Your task to perform on an android device: turn off translation in the chrome app Image 0: 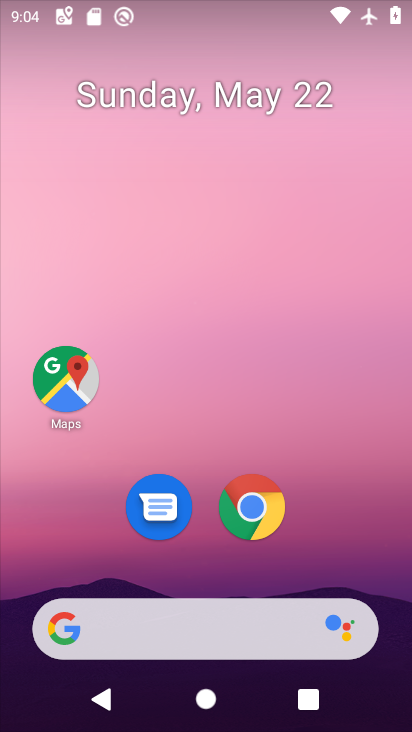
Step 0: click (262, 502)
Your task to perform on an android device: turn off translation in the chrome app Image 1: 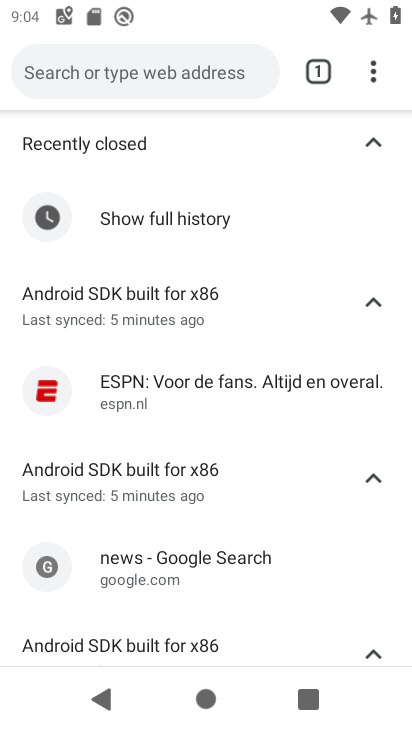
Step 1: click (361, 66)
Your task to perform on an android device: turn off translation in the chrome app Image 2: 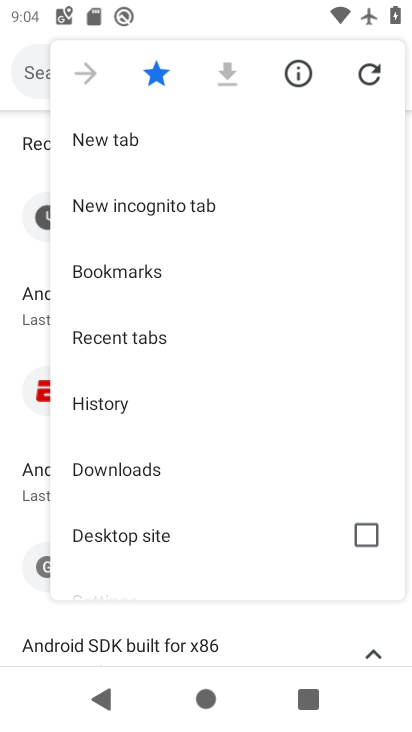
Step 2: drag from (147, 587) to (245, 258)
Your task to perform on an android device: turn off translation in the chrome app Image 3: 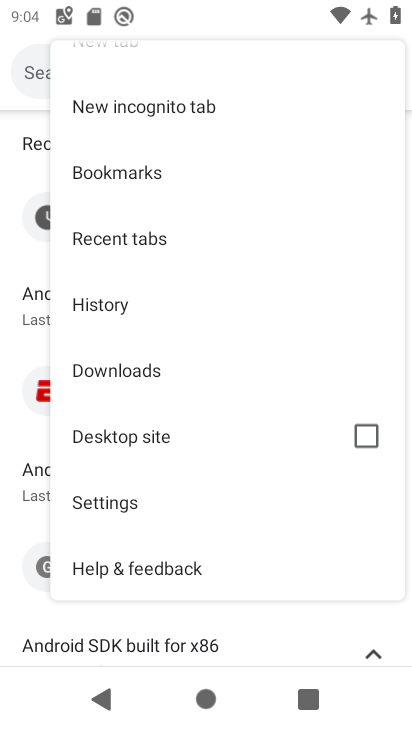
Step 3: click (93, 527)
Your task to perform on an android device: turn off translation in the chrome app Image 4: 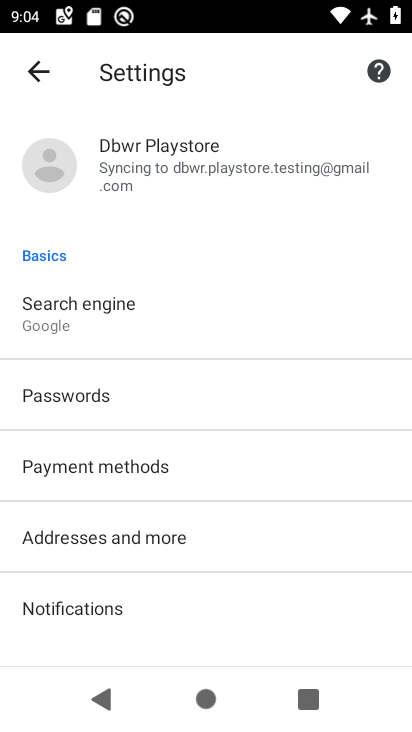
Step 4: drag from (138, 603) to (252, 183)
Your task to perform on an android device: turn off translation in the chrome app Image 5: 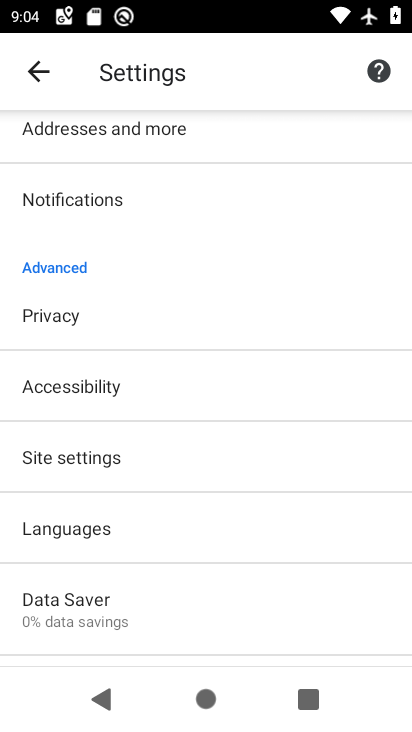
Step 5: click (136, 533)
Your task to perform on an android device: turn off translation in the chrome app Image 6: 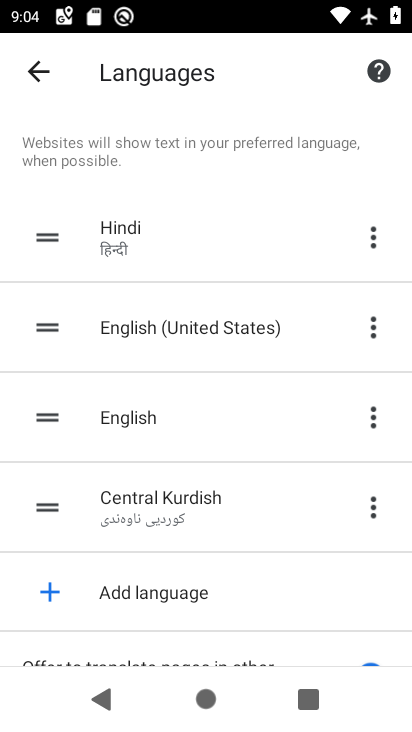
Step 6: drag from (177, 597) to (271, 95)
Your task to perform on an android device: turn off translation in the chrome app Image 7: 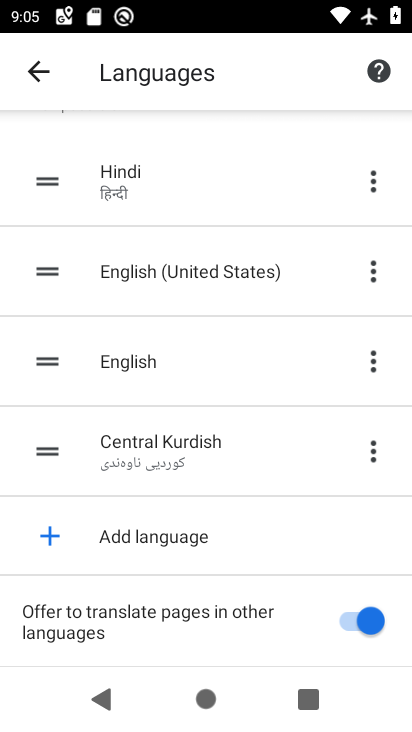
Step 7: click (362, 628)
Your task to perform on an android device: turn off translation in the chrome app Image 8: 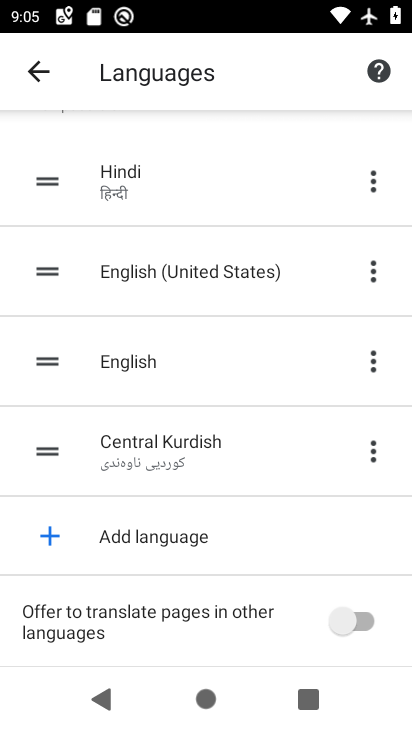
Step 8: task complete